Your task to perform on an android device: Open the map Image 0: 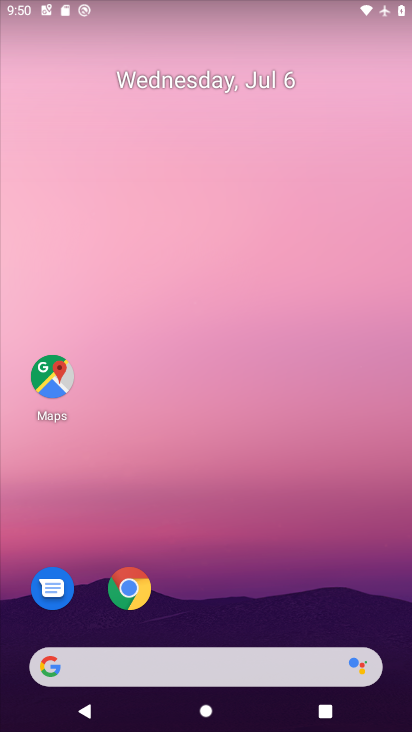
Step 0: click (46, 383)
Your task to perform on an android device: Open the map Image 1: 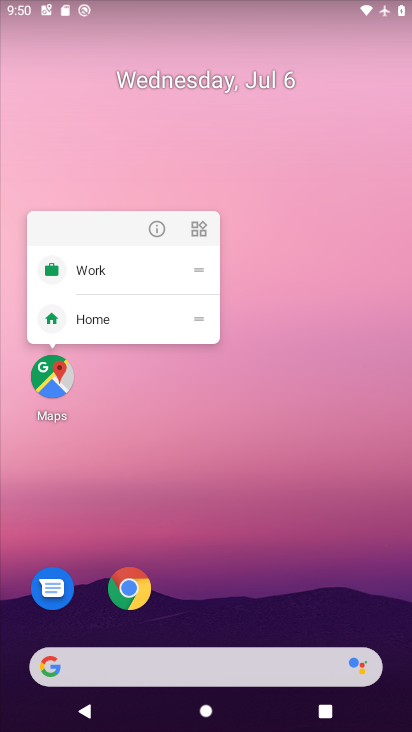
Step 1: click (56, 381)
Your task to perform on an android device: Open the map Image 2: 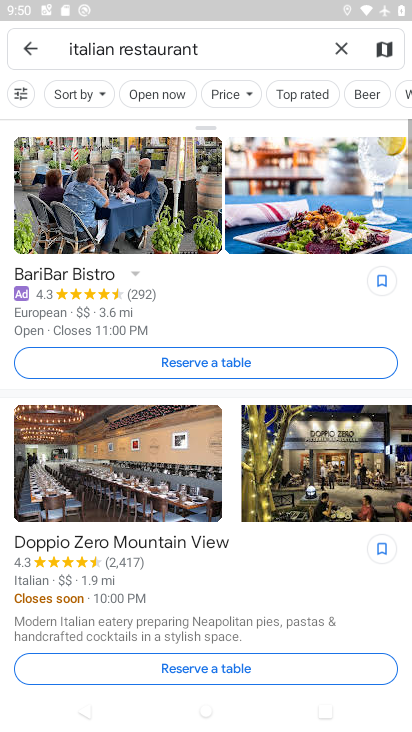
Step 2: task complete